Your task to perform on an android device: Open Google Chrome Image 0: 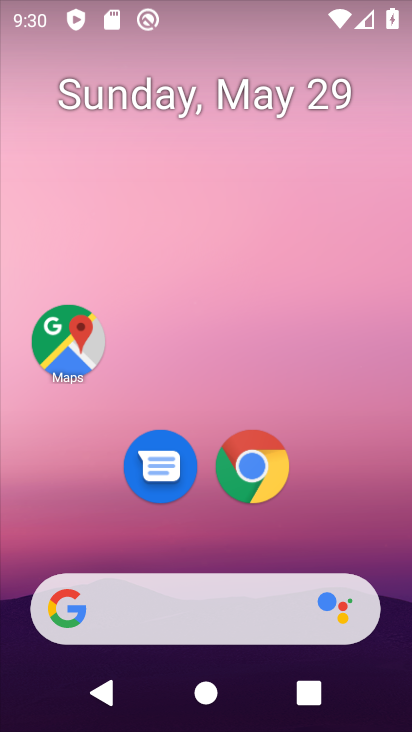
Step 0: click (235, 466)
Your task to perform on an android device: Open Google Chrome Image 1: 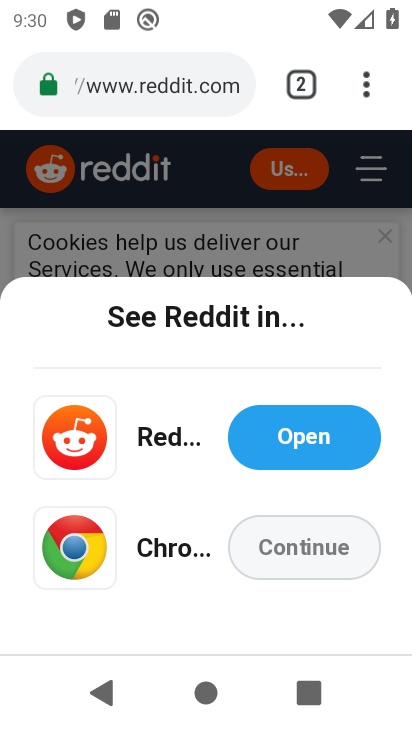
Step 1: click (335, 544)
Your task to perform on an android device: Open Google Chrome Image 2: 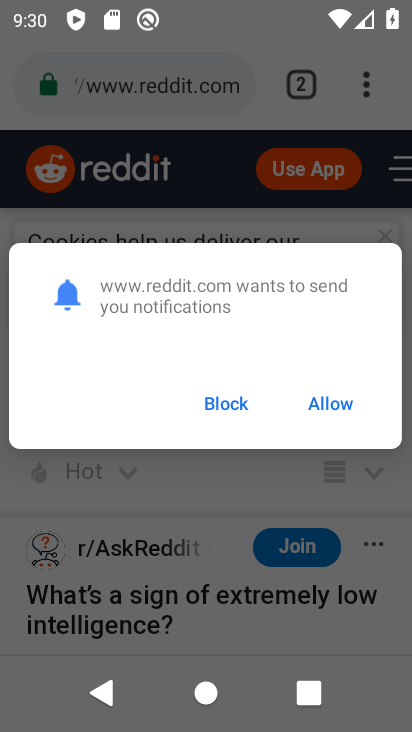
Step 2: click (324, 408)
Your task to perform on an android device: Open Google Chrome Image 3: 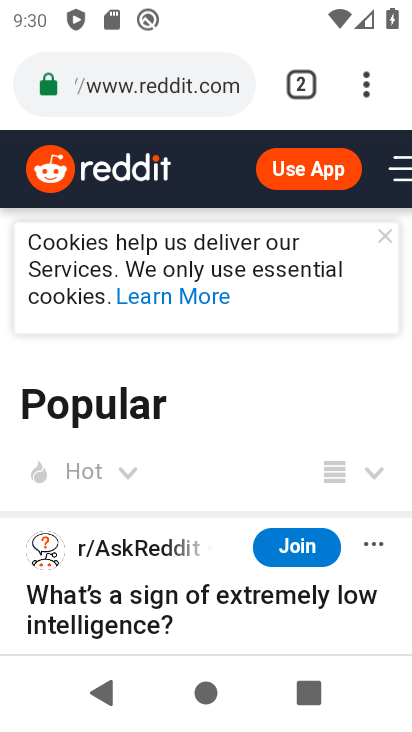
Step 3: task complete